Your task to perform on an android device: Search for "corsair k70" on walmart.com, select the first entry, and add it to the cart. Image 0: 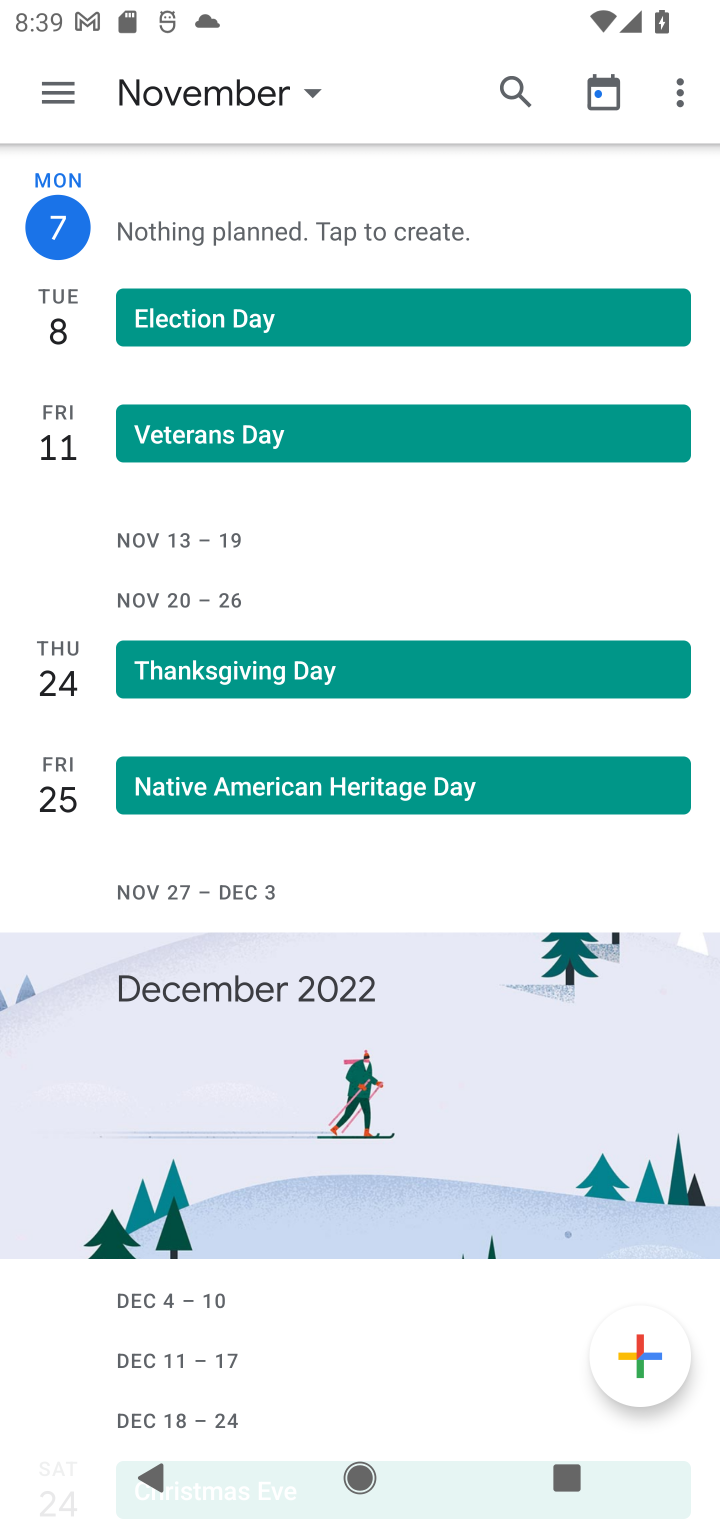
Step 0: press home button
Your task to perform on an android device: Search for "corsair k70" on walmart.com, select the first entry, and add it to the cart. Image 1: 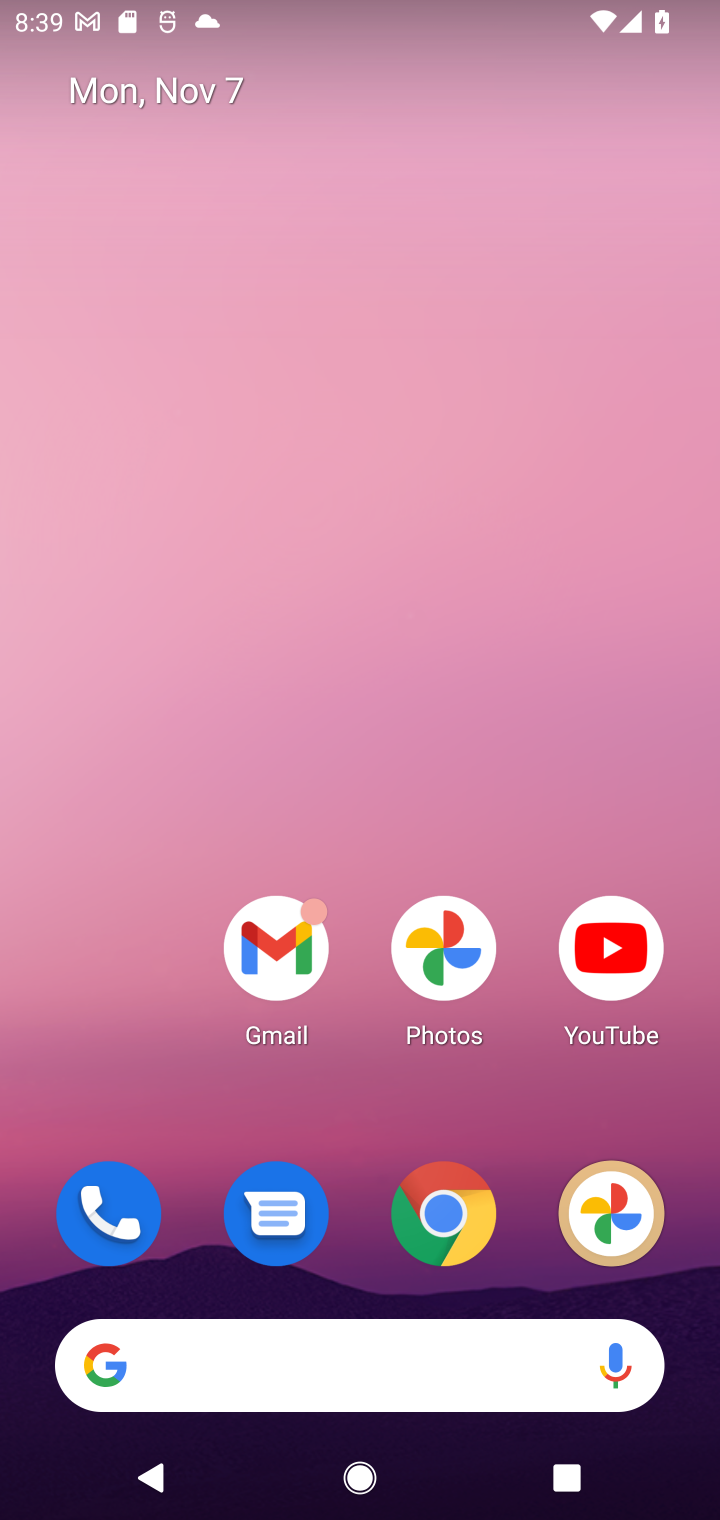
Step 1: click (439, 1208)
Your task to perform on an android device: Search for "corsair k70" on walmart.com, select the first entry, and add it to the cart. Image 2: 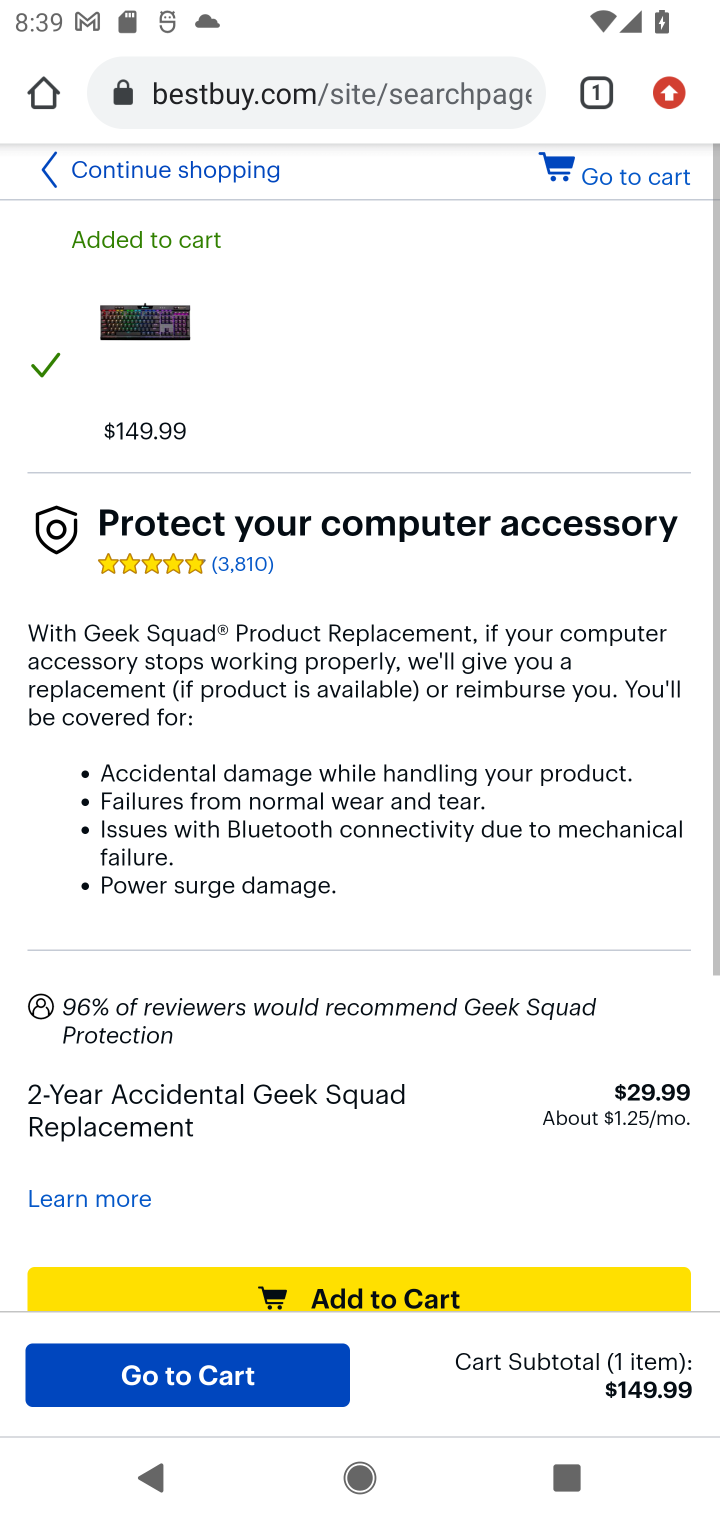
Step 2: click (352, 97)
Your task to perform on an android device: Search for "corsair k70" on walmart.com, select the first entry, and add it to the cart. Image 3: 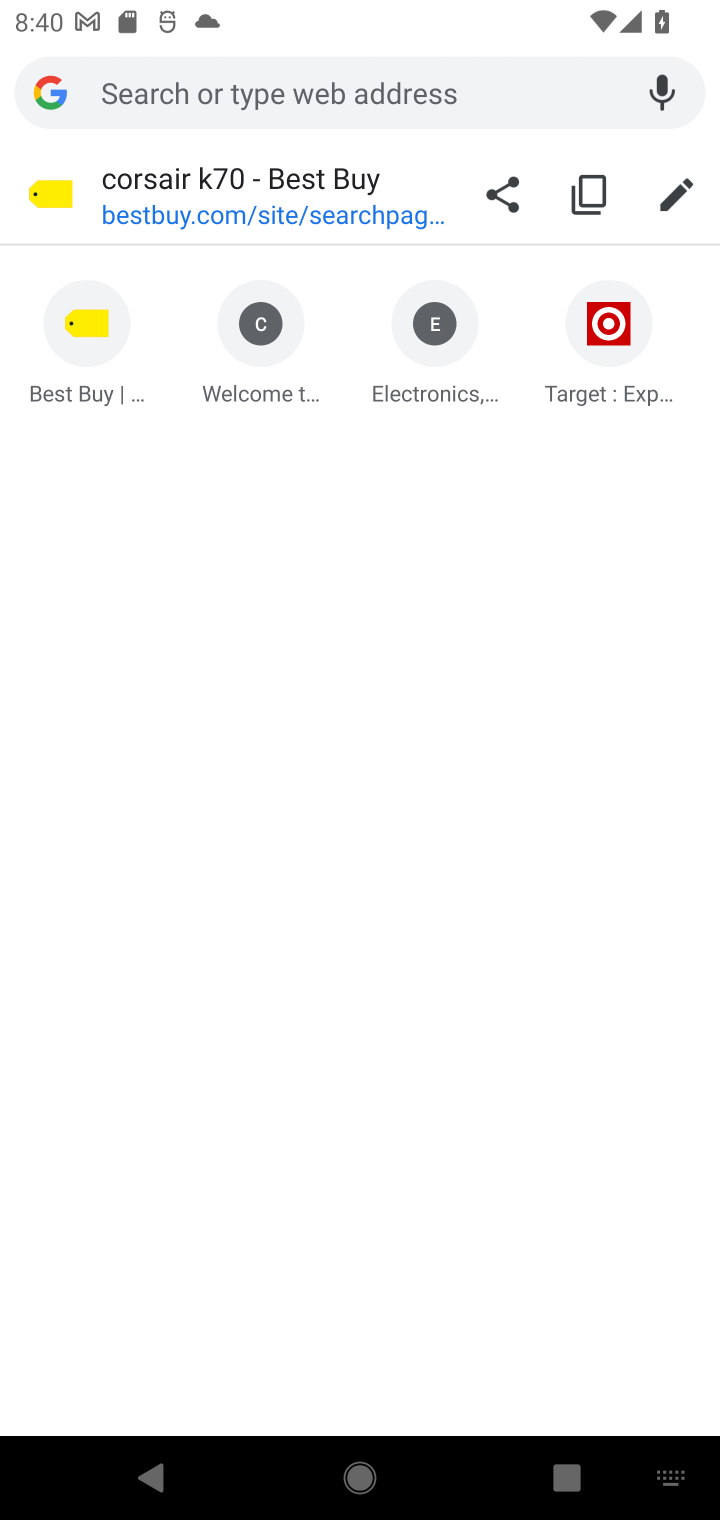
Step 3: type "walmart.com"
Your task to perform on an android device: Search for "corsair k70" on walmart.com, select the first entry, and add it to the cart. Image 4: 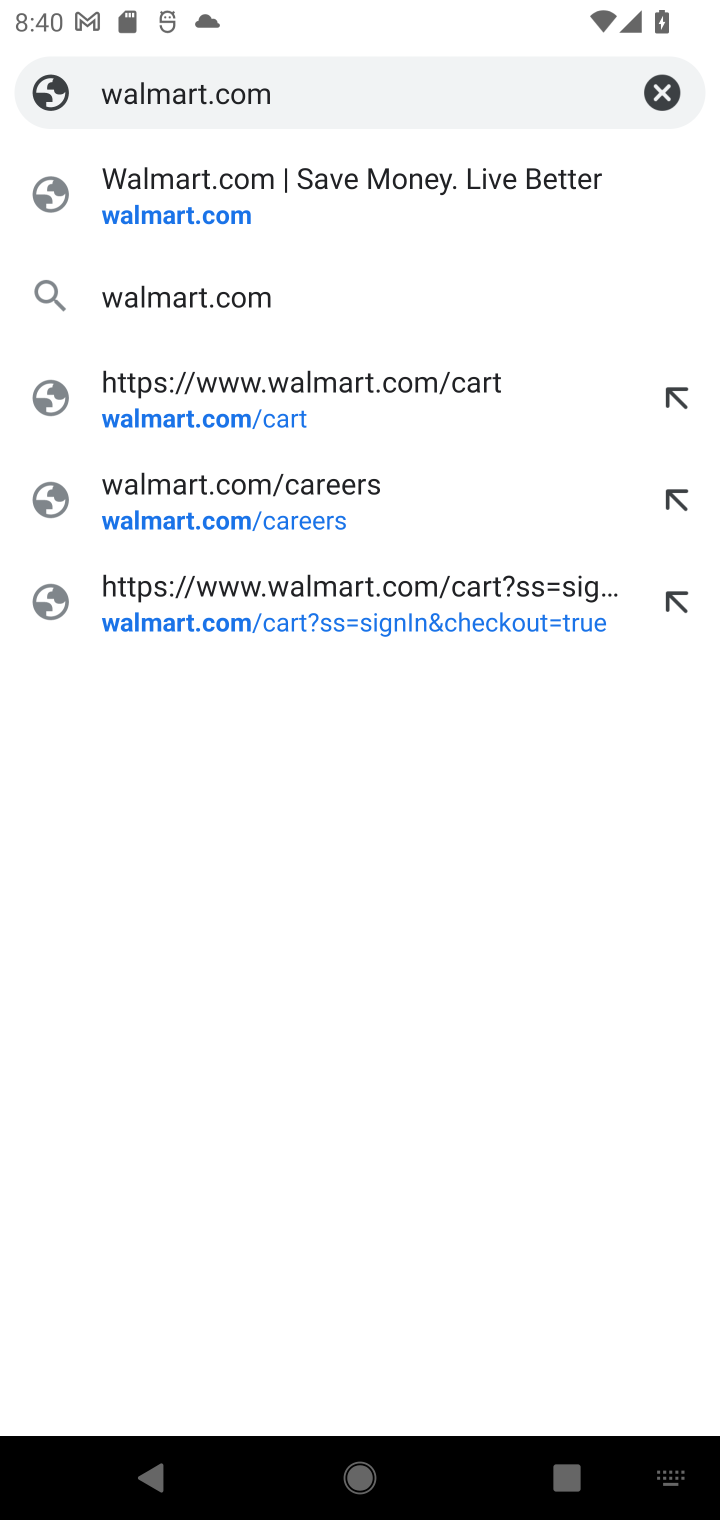
Step 4: click (208, 218)
Your task to perform on an android device: Search for "corsair k70" on walmart.com, select the first entry, and add it to the cart. Image 5: 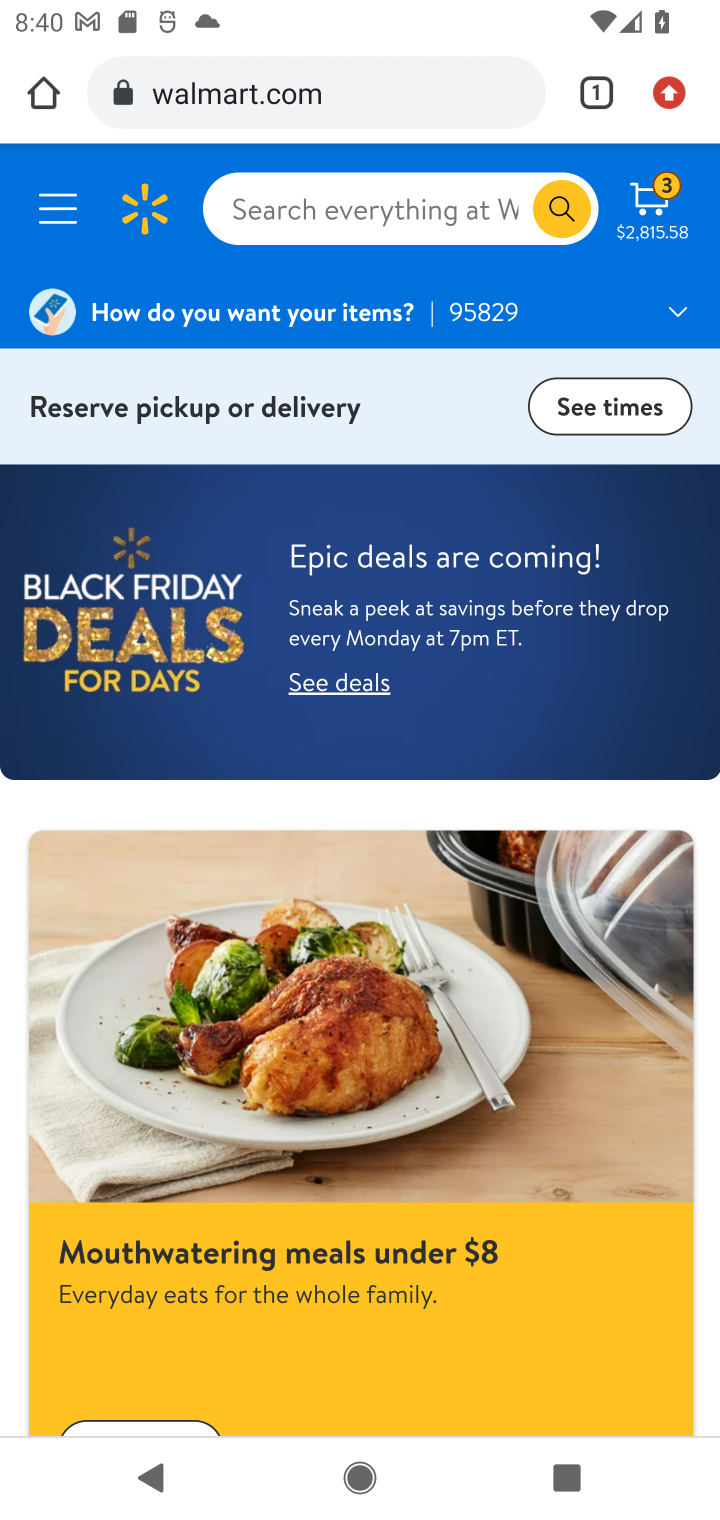
Step 5: click (313, 212)
Your task to perform on an android device: Search for "corsair k70" on walmart.com, select the first entry, and add it to the cart. Image 6: 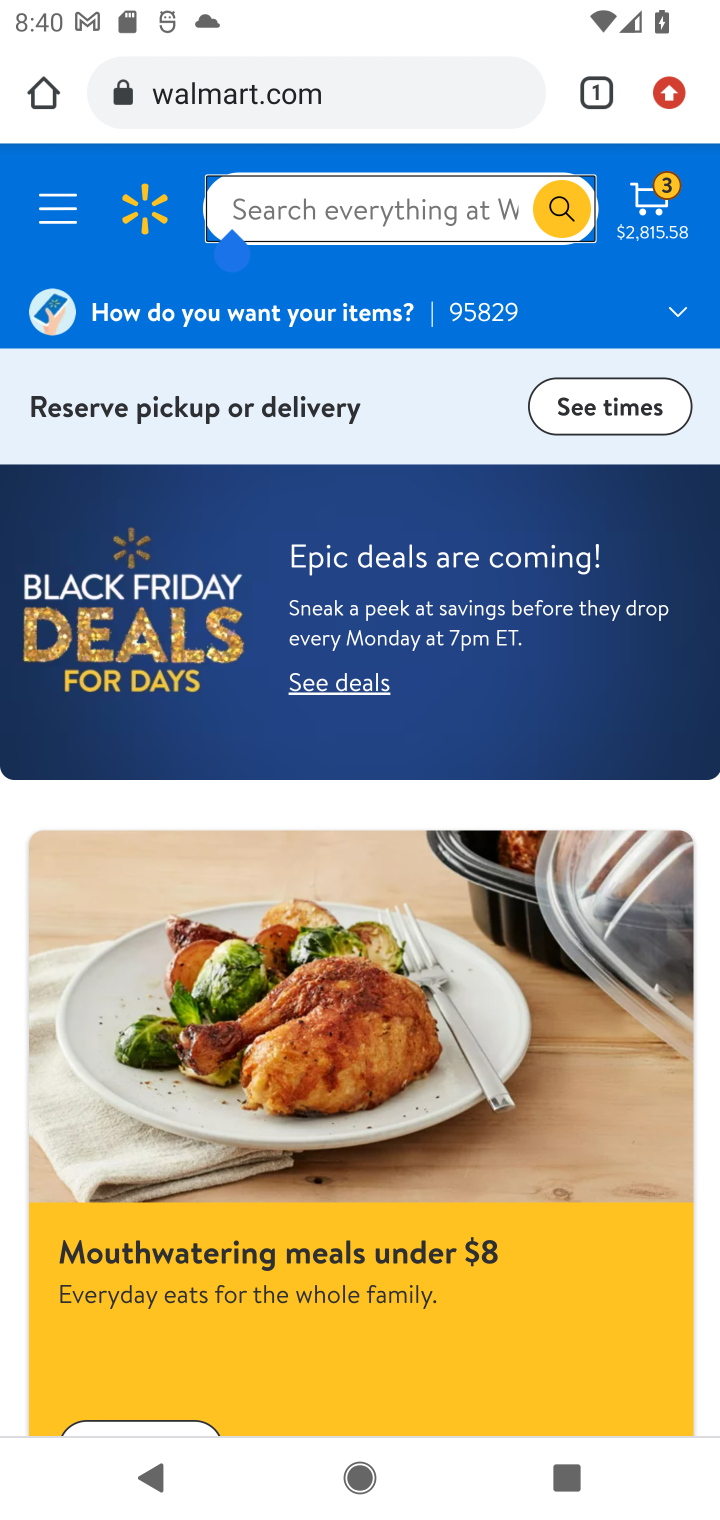
Step 6: type "corsair k70"
Your task to perform on an android device: Search for "corsair k70" on walmart.com, select the first entry, and add it to the cart. Image 7: 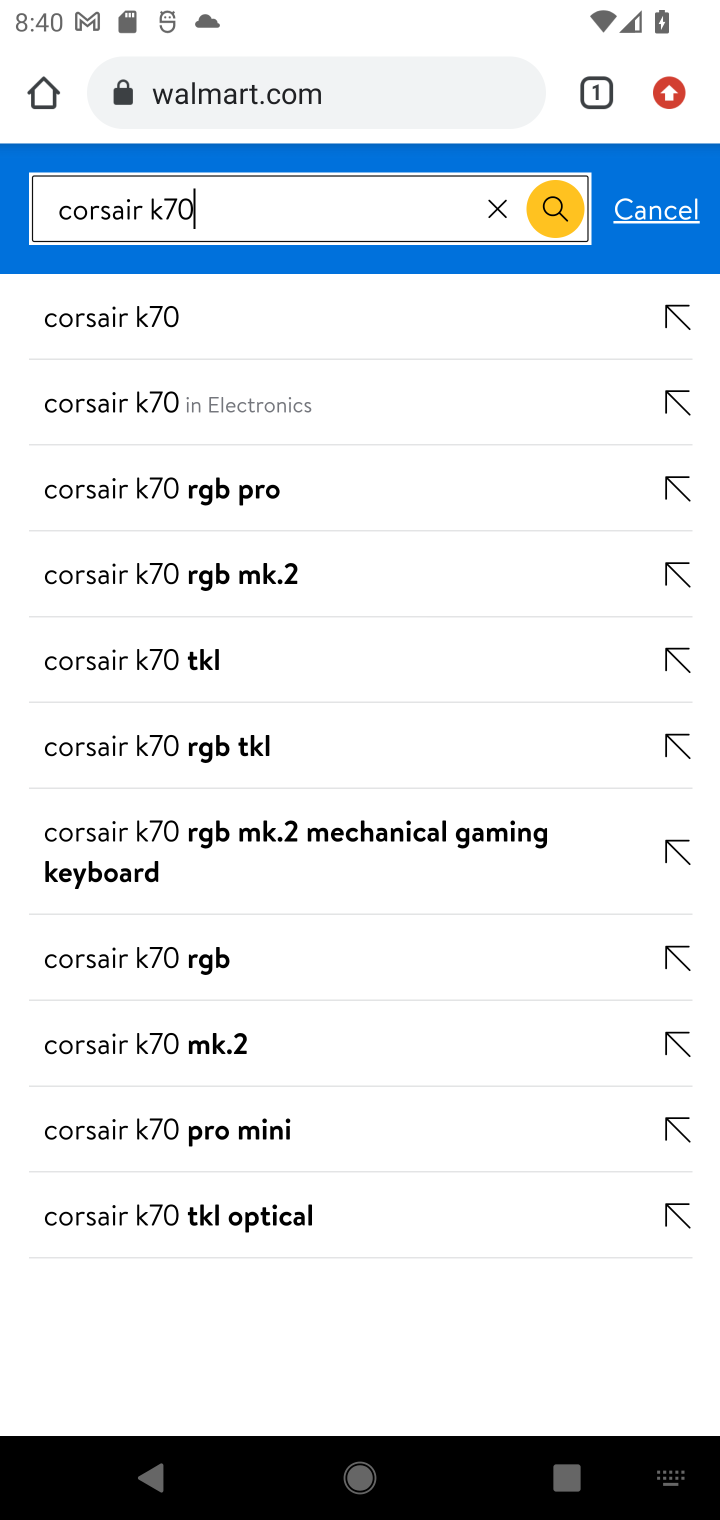
Step 7: click (123, 312)
Your task to perform on an android device: Search for "corsair k70" on walmart.com, select the first entry, and add it to the cart. Image 8: 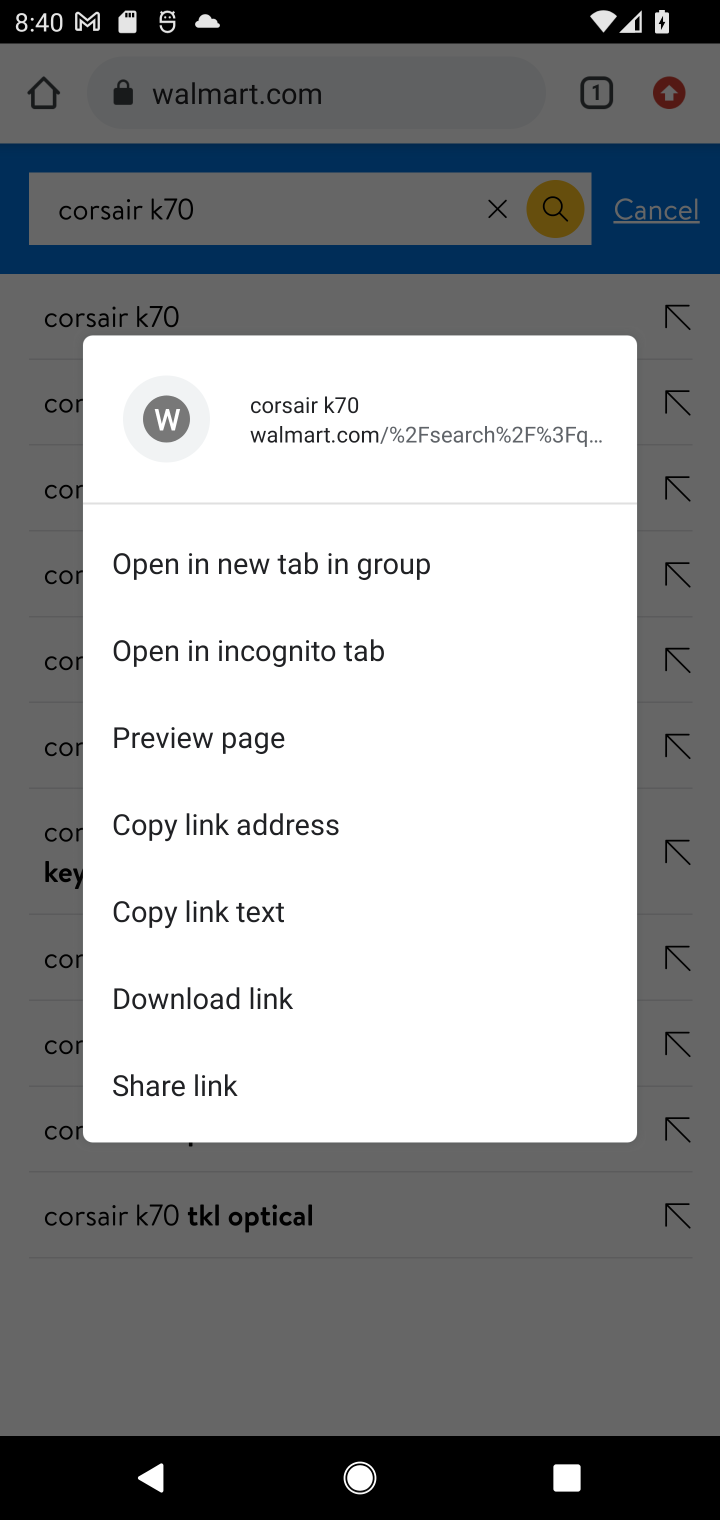
Step 8: click (66, 328)
Your task to perform on an android device: Search for "corsair k70" on walmart.com, select the first entry, and add it to the cart. Image 9: 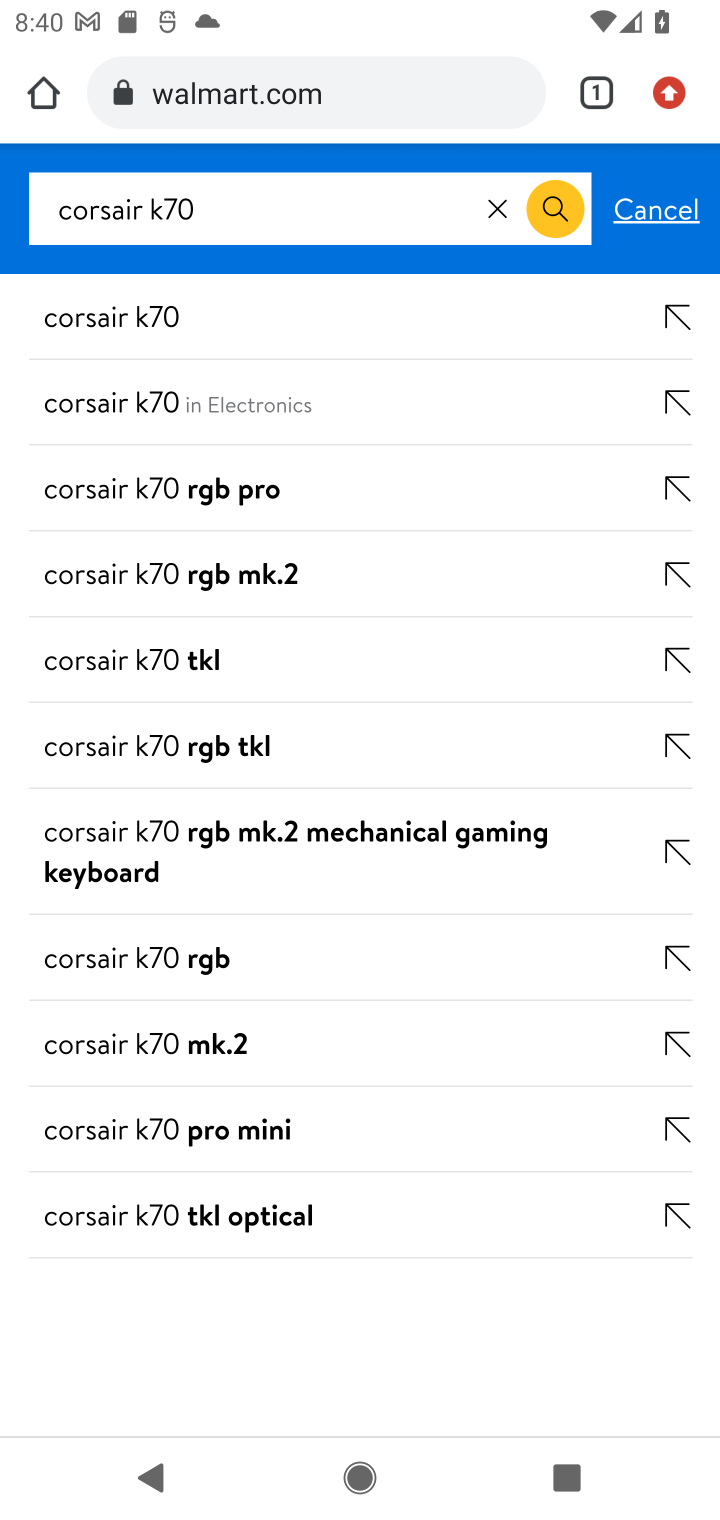
Step 9: click (124, 404)
Your task to perform on an android device: Search for "corsair k70" on walmart.com, select the first entry, and add it to the cart. Image 10: 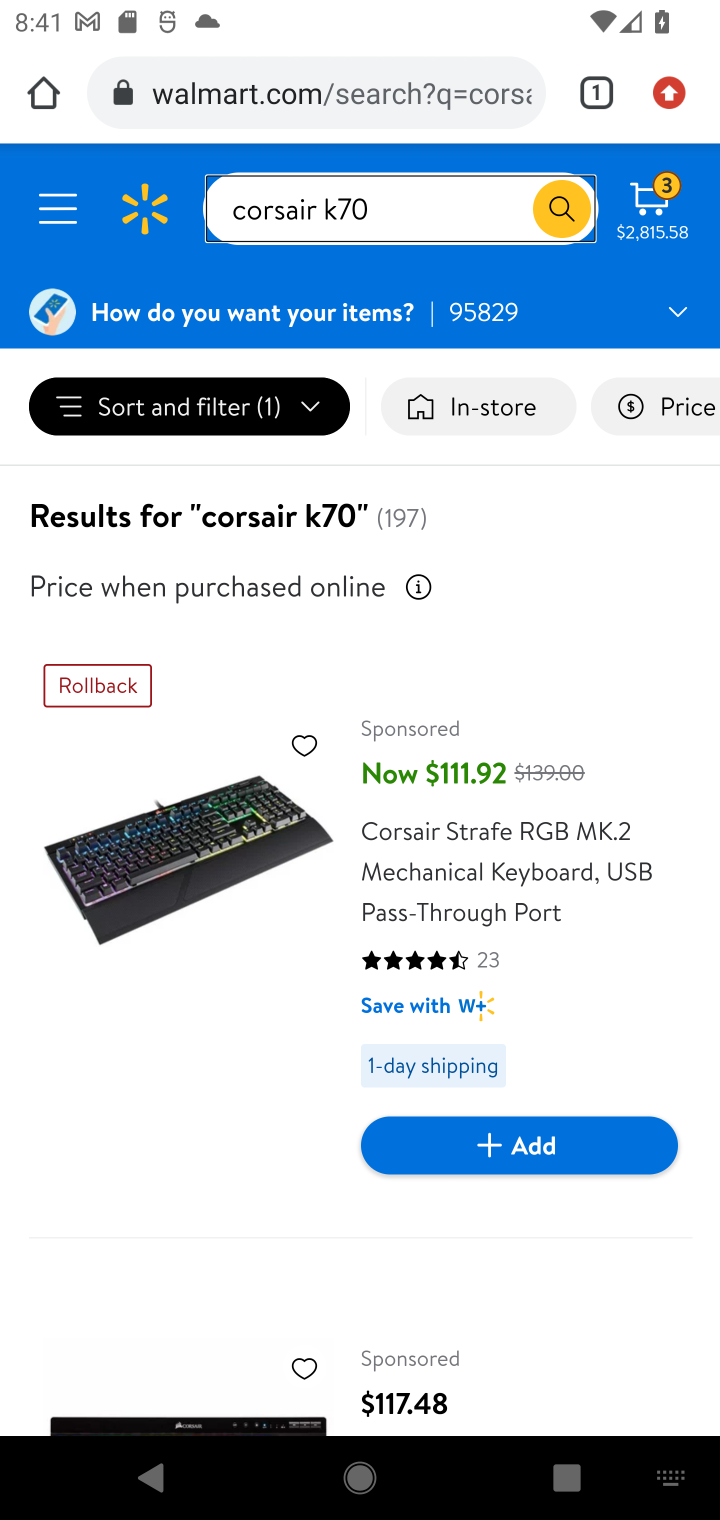
Step 10: task complete